Your task to perform on an android device: Open Google Image 0: 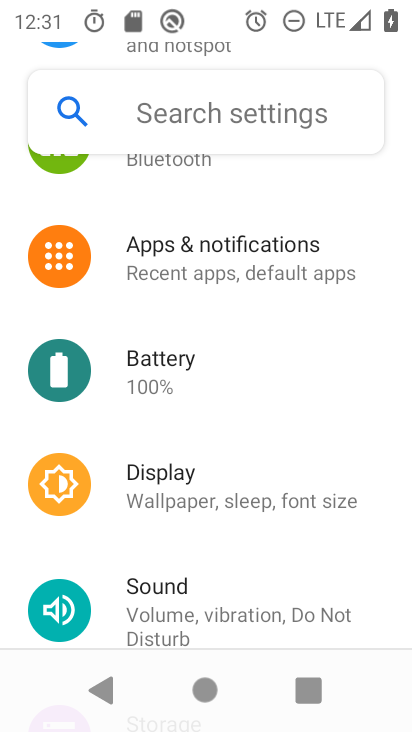
Step 0: press home button
Your task to perform on an android device: Open Google Image 1: 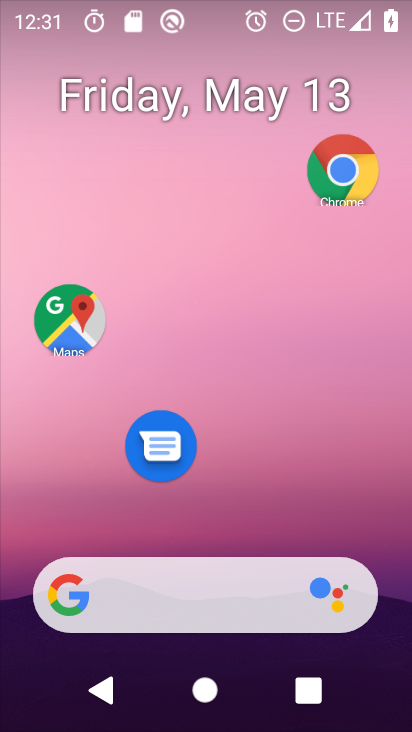
Step 1: drag from (311, 574) to (295, 1)
Your task to perform on an android device: Open Google Image 2: 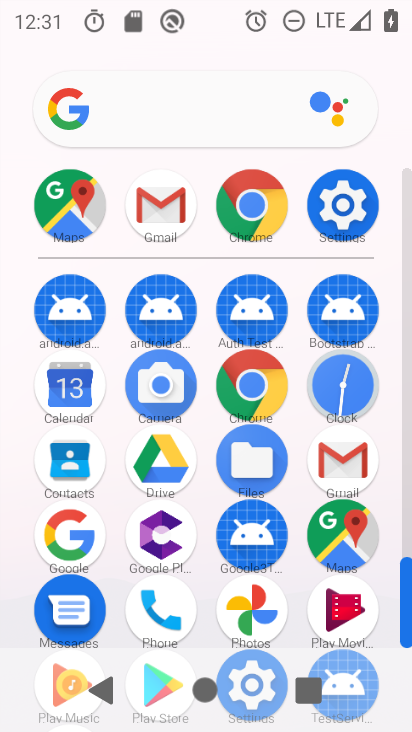
Step 2: click (248, 385)
Your task to perform on an android device: Open Google Image 3: 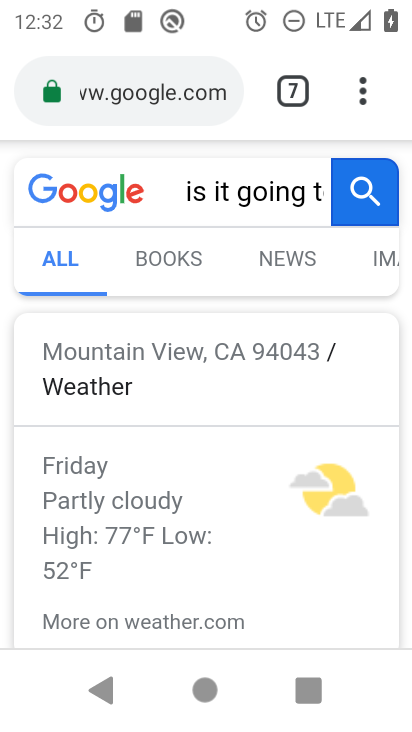
Step 3: drag from (336, 177) to (264, 218)
Your task to perform on an android device: Open Google Image 4: 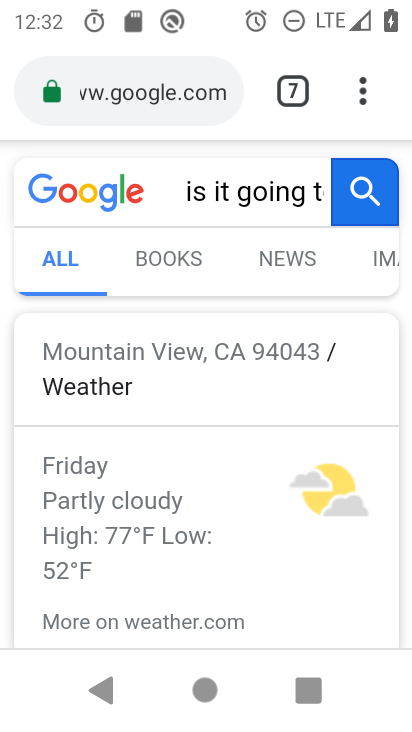
Step 4: click (160, 240)
Your task to perform on an android device: Open Google Image 5: 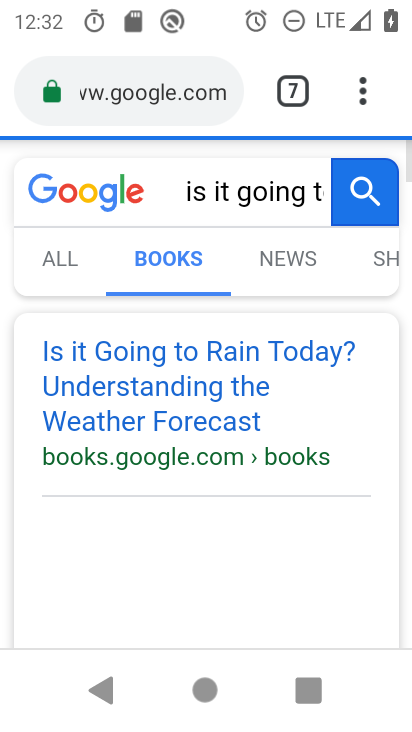
Step 5: task complete